Your task to perform on an android device: Search for seafood restaurants on Google Maps Image 0: 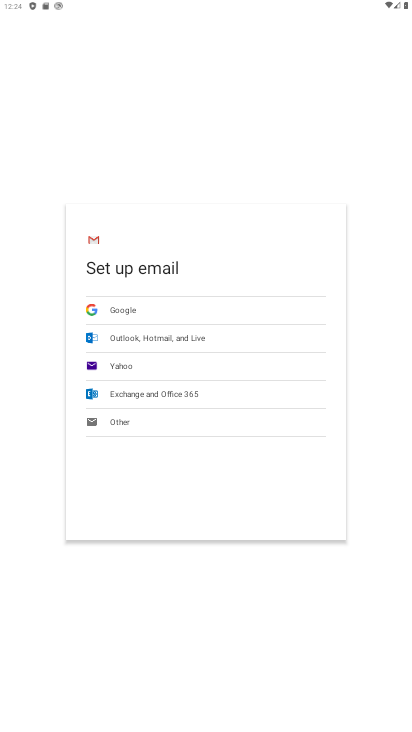
Step 0: press home button
Your task to perform on an android device: Search for seafood restaurants on Google Maps Image 1: 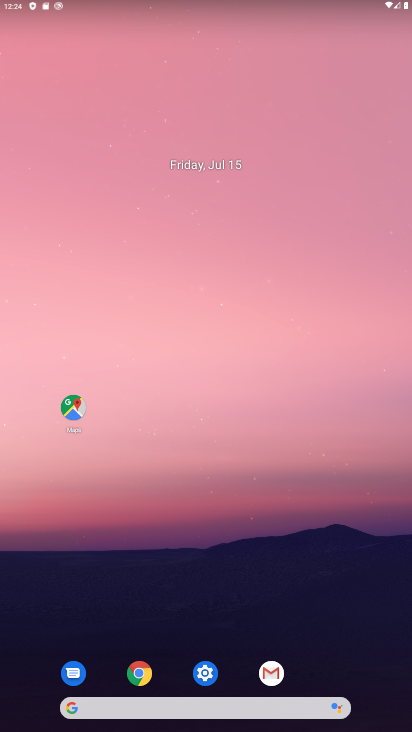
Step 1: click (70, 409)
Your task to perform on an android device: Search for seafood restaurants on Google Maps Image 2: 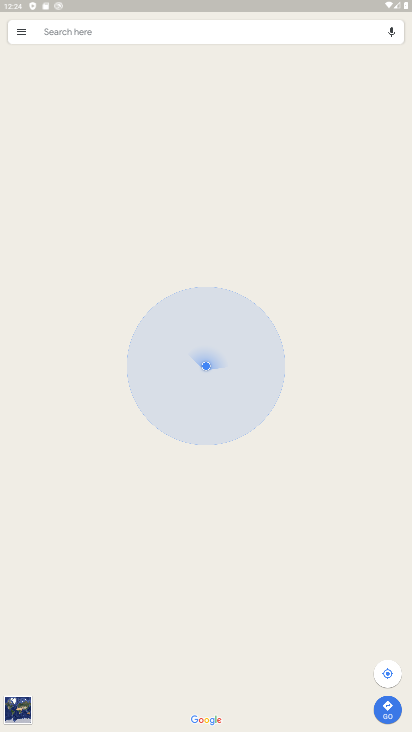
Step 2: click (133, 34)
Your task to perform on an android device: Search for seafood restaurants on Google Maps Image 3: 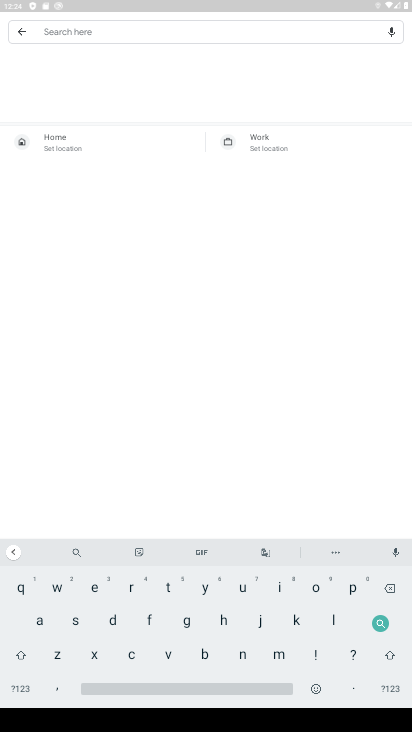
Step 3: click (69, 621)
Your task to perform on an android device: Search for seafood restaurants on Google Maps Image 4: 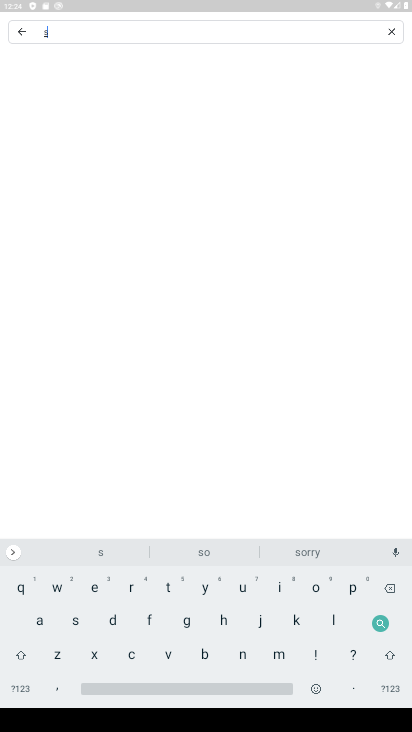
Step 4: click (95, 586)
Your task to perform on an android device: Search for seafood restaurants on Google Maps Image 5: 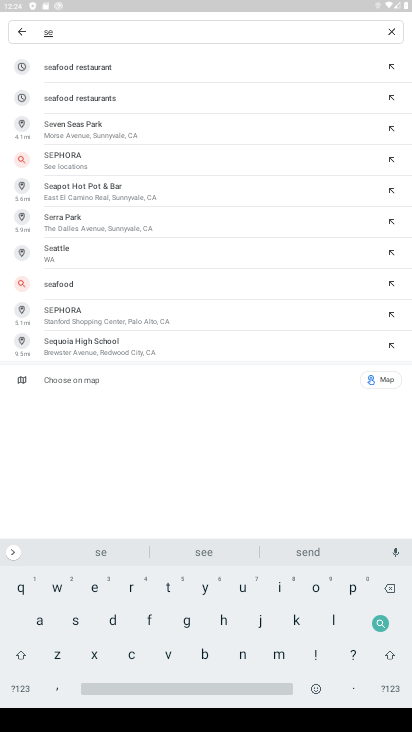
Step 5: click (35, 622)
Your task to perform on an android device: Search for seafood restaurants on Google Maps Image 6: 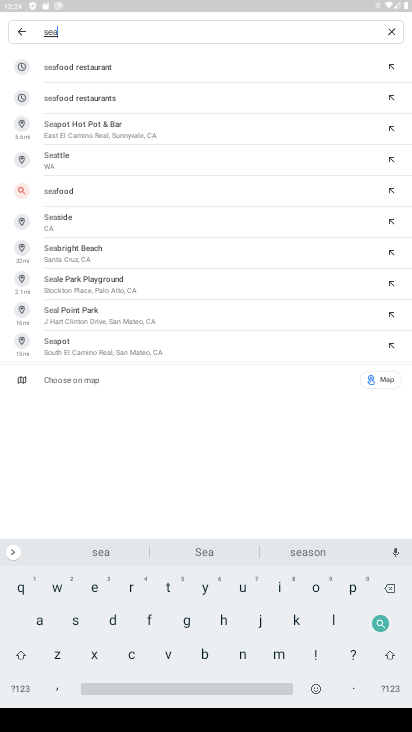
Step 6: click (112, 61)
Your task to perform on an android device: Search for seafood restaurants on Google Maps Image 7: 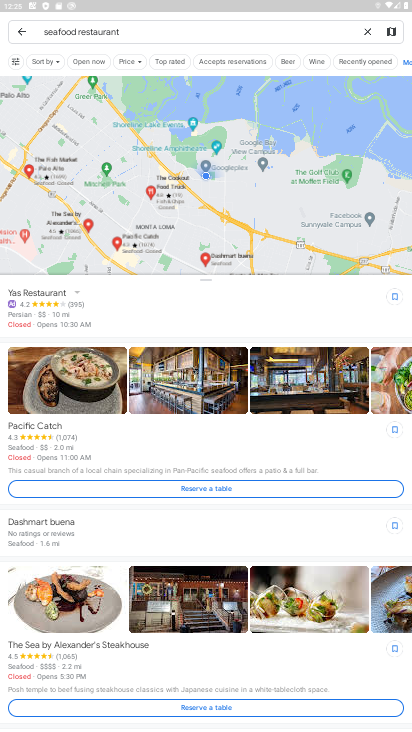
Step 7: task complete